Your task to perform on an android device: turn on data saver in the chrome app Image 0: 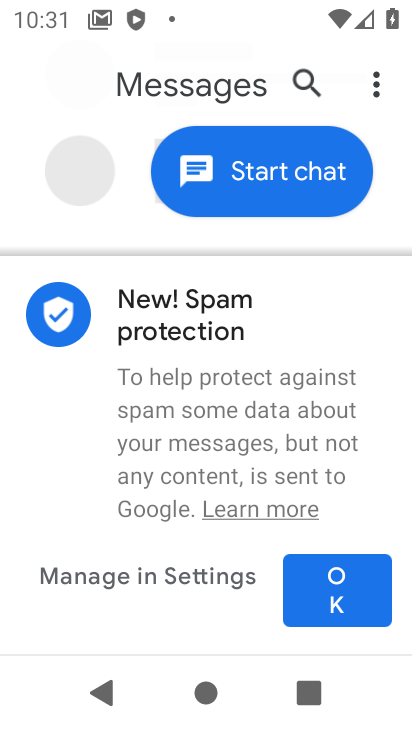
Step 0: press home button
Your task to perform on an android device: turn on data saver in the chrome app Image 1: 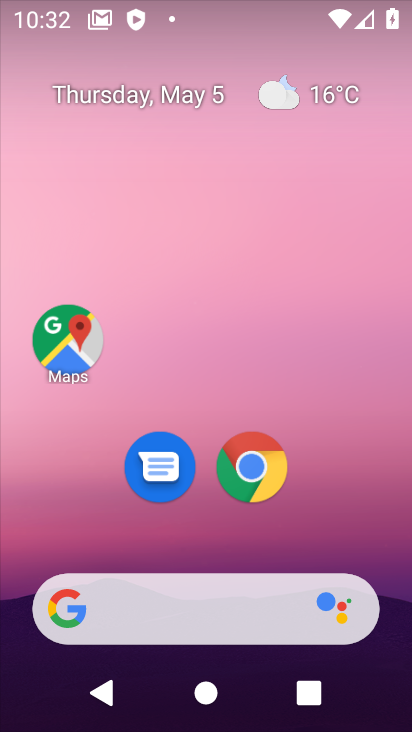
Step 1: click (254, 462)
Your task to perform on an android device: turn on data saver in the chrome app Image 2: 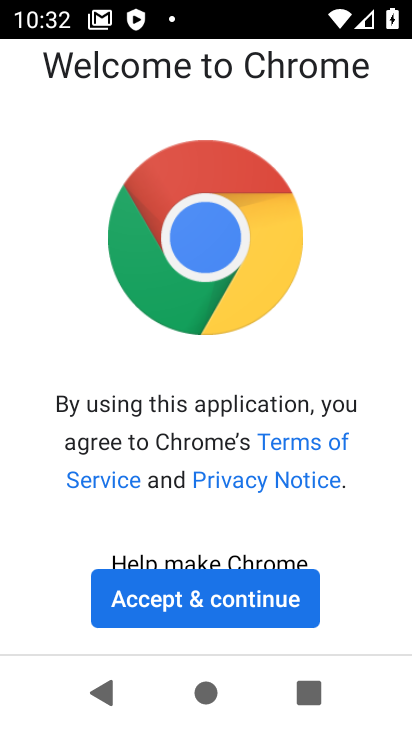
Step 2: click (206, 599)
Your task to perform on an android device: turn on data saver in the chrome app Image 3: 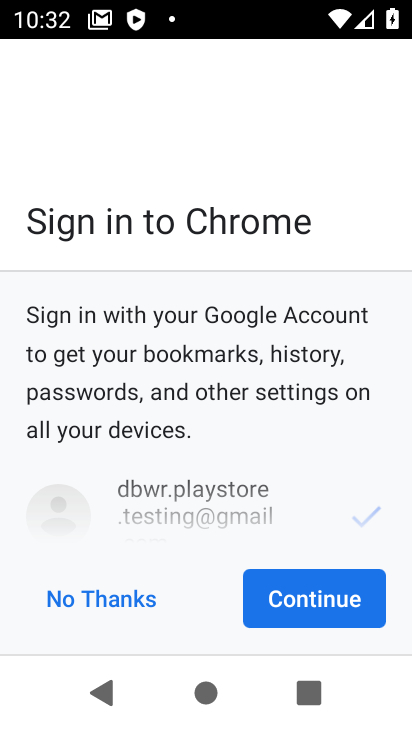
Step 3: click (265, 595)
Your task to perform on an android device: turn on data saver in the chrome app Image 4: 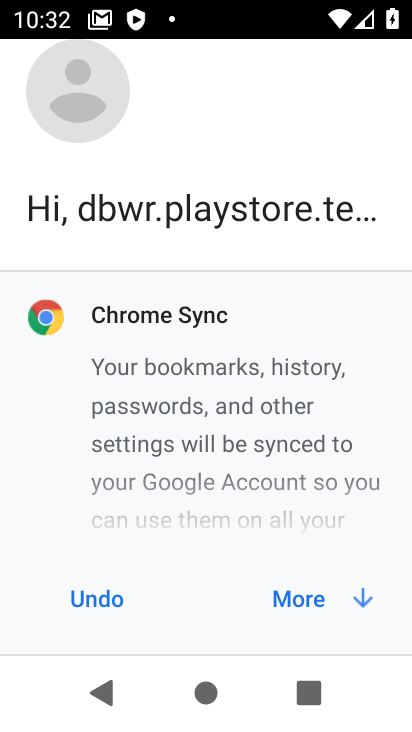
Step 4: click (284, 592)
Your task to perform on an android device: turn on data saver in the chrome app Image 5: 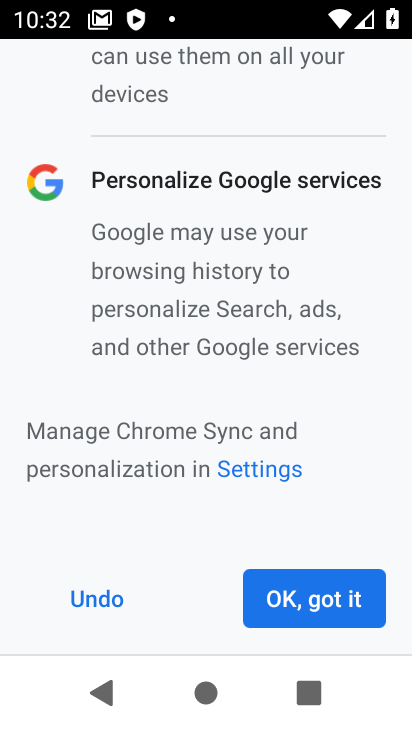
Step 5: click (284, 592)
Your task to perform on an android device: turn on data saver in the chrome app Image 6: 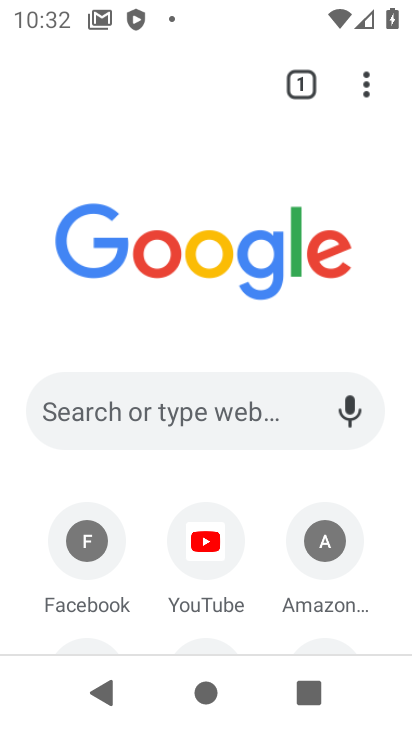
Step 6: click (366, 90)
Your task to perform on an android device: turn on data saver in the chrome app Image 7: 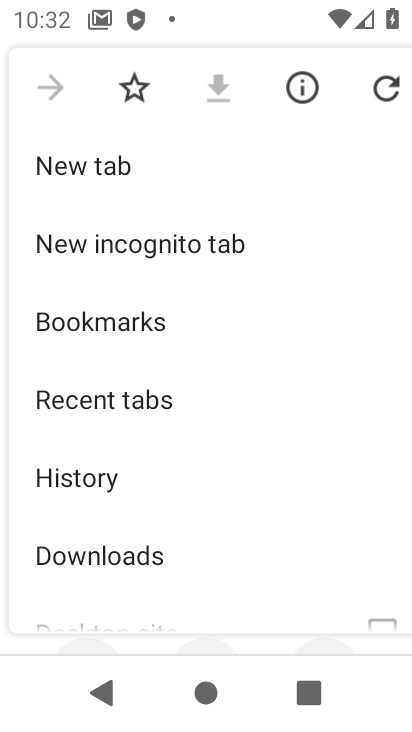
Step 7: drag from (139, 551) to (178, 314)
Your task to perform on an android device: turn on data saver in the chrome app Image 8: 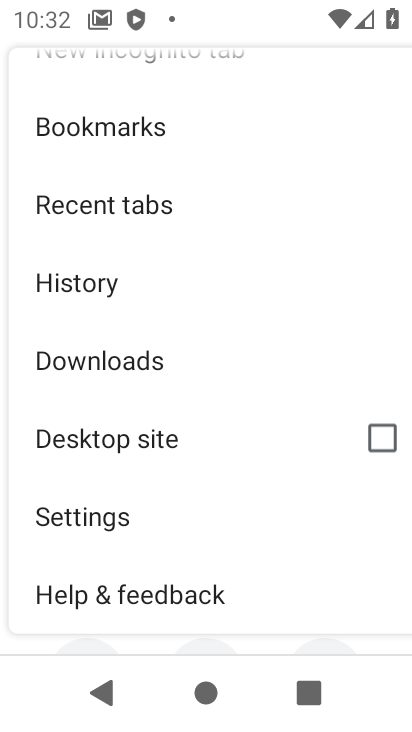
Step 8: click (134, 514)
Your task to perform on an android device: turn on data saver in the chrome app Image 9: 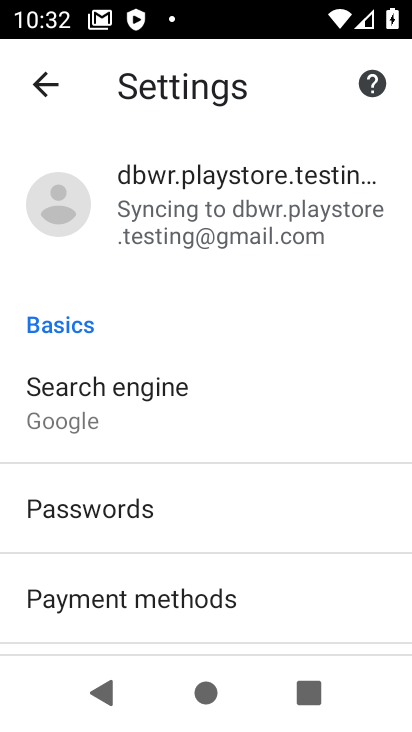
Step 9: drag from (142, 556) to (176, 337)
Your task to perform on an android device: turn on data saver in the chrome app Image 10: 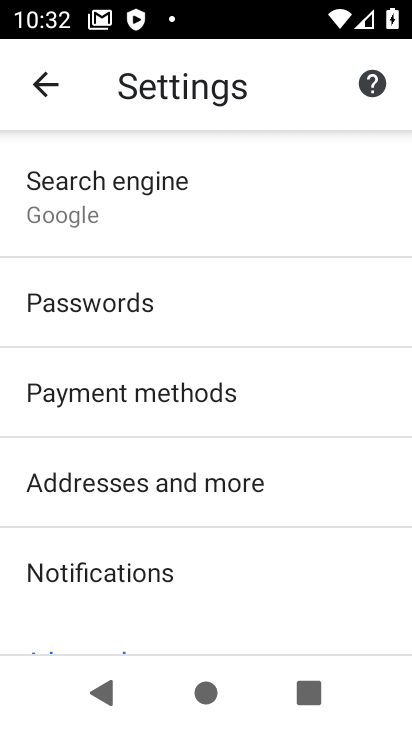
Step 10: drag from (153, 521) to (171, 310)
Your task to perform on an android device: turn on data saver in the chrome app Image 11: 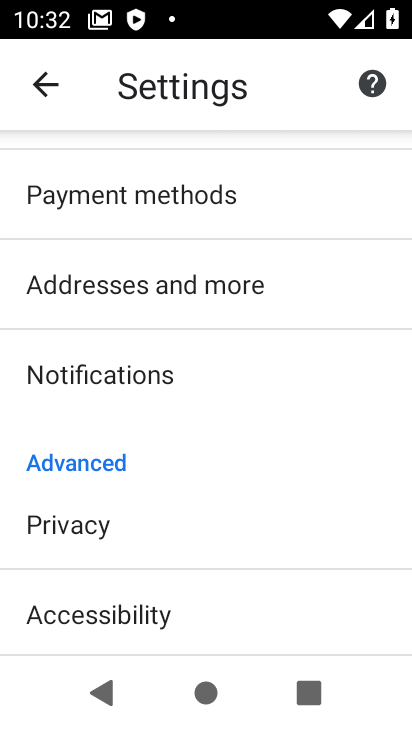
Step 11: drag from (196, 616) to (197, 417)
Your task to perform on an android device: turn on data saver in the chrome app Image 12: 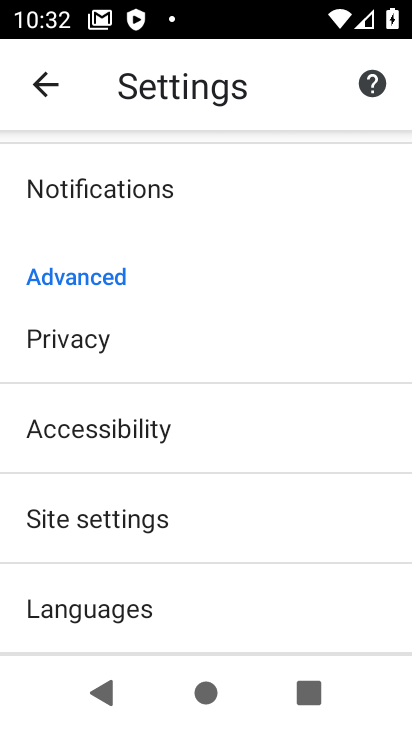
Step 12: click (159, 537)
Your task to perform on an android device: turn on data saver in the chrome app Image 13: 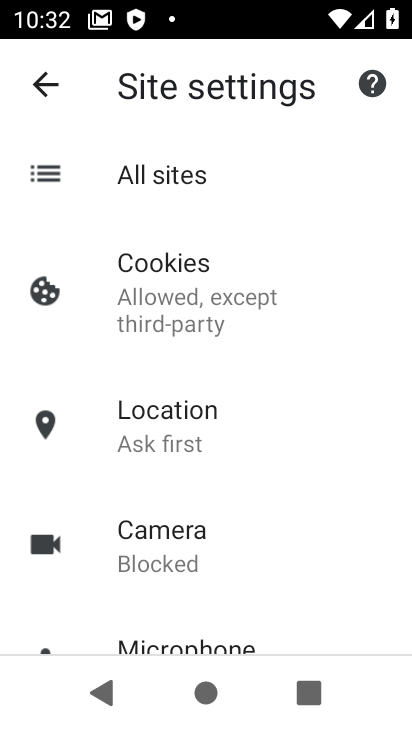
Step 13: task complete